Your task to perform on an android device: Open network settings Image 0: 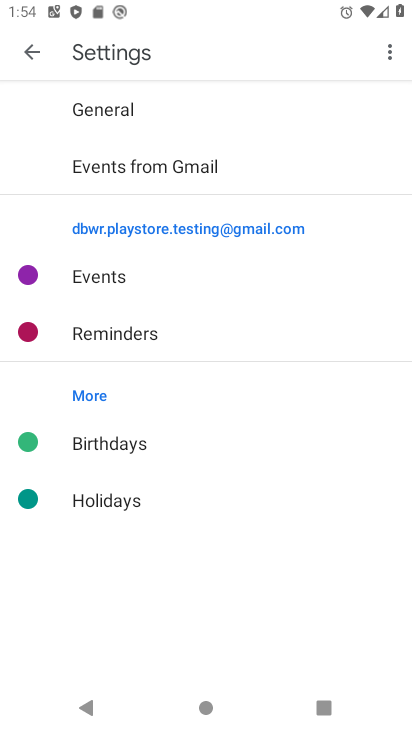
Step 0: press home button
Your task to perform on an android device: Open network settings Image 1: 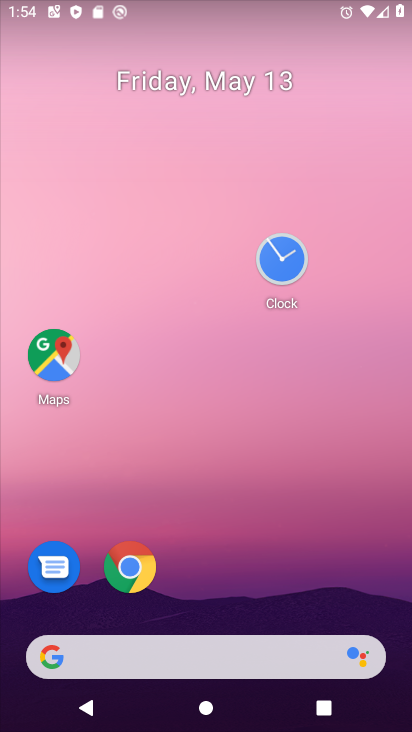
Step 1: drag from (222, 572) to (259, 2)
Your task to perform on an android device: Open network settings Image 2: 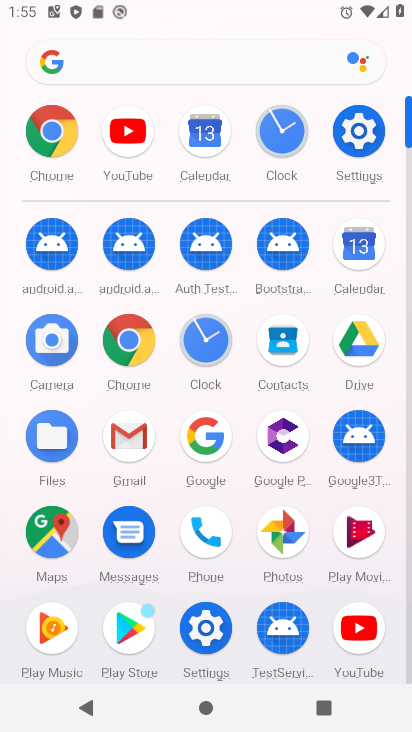
Step 2: click (351, 156)
Your task to perform on an android device: Open network settings Image 3: 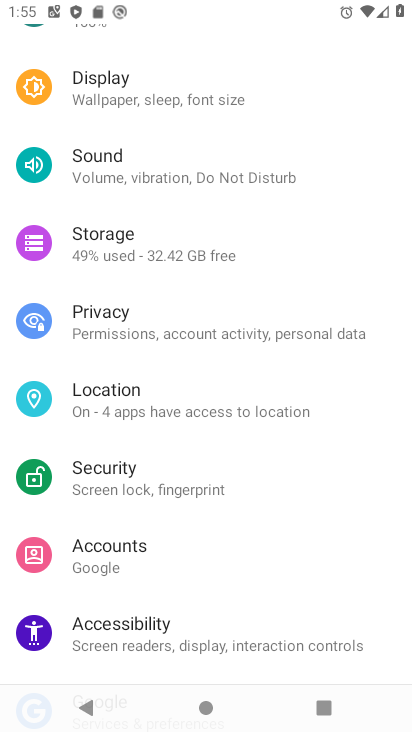
Step 3: drag from (186, 138) to (158, 617)
Your task to perform on an android device: Open network settings Image 4: 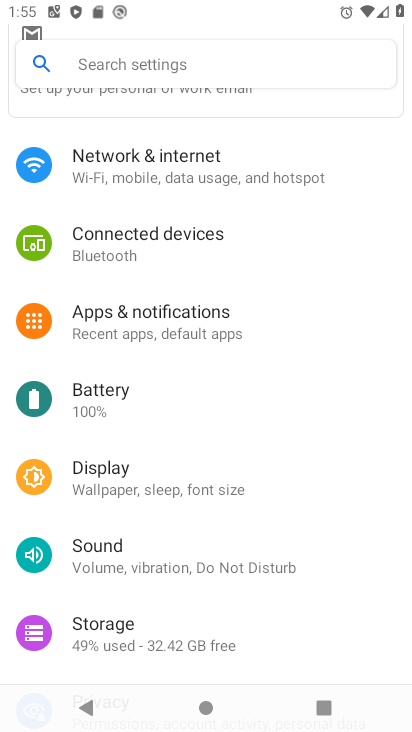
Step 4: click (260, 166)
Your task to perform on an android device: Open network settings Image 5: 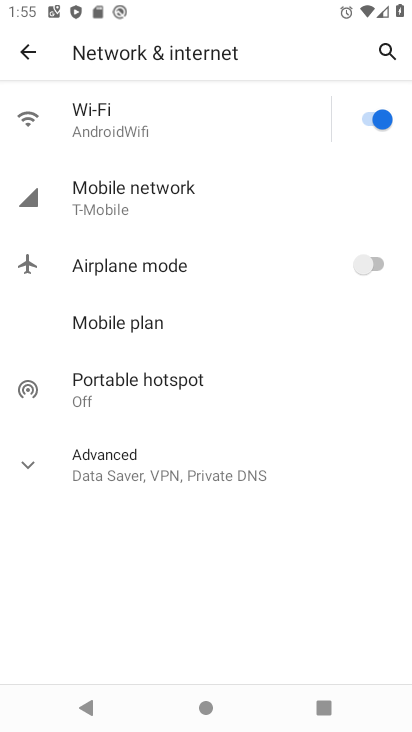
Step 5: click (190, 132)
Your task to perform on an android device: Open network settings Image 6: 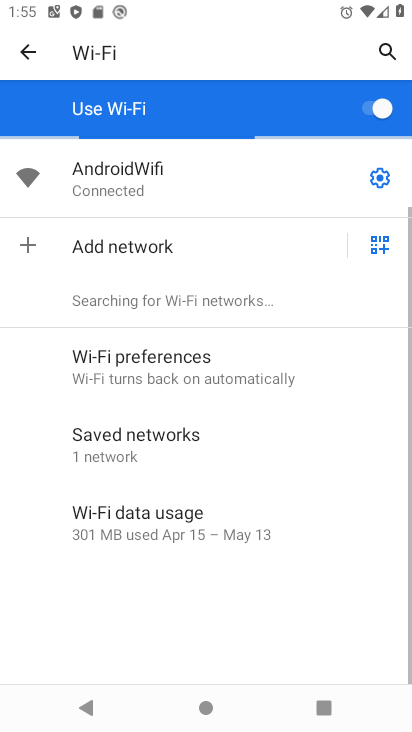
Step 6: task complete